Your task to perform on an android device: Open eBay Image 0: 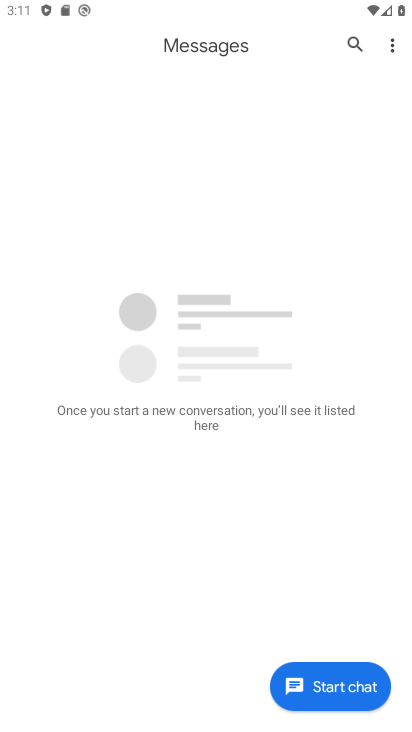
Step 0: press home button
Your task to perform on an android device: Open eBay Image 1: 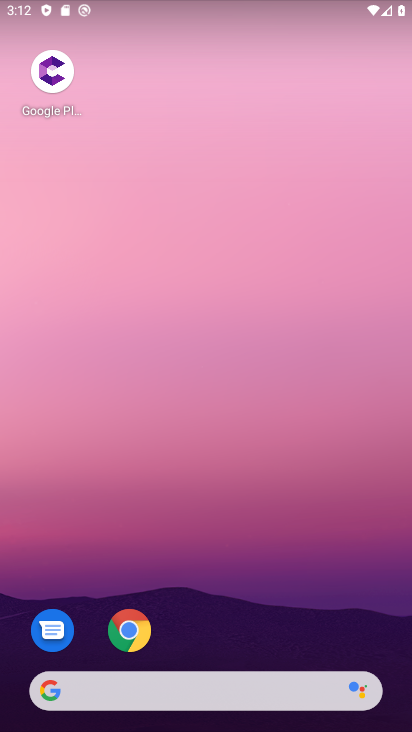
Step 1: click (124, 624)
Your task to perform on an android device: Open eBay Image 2: 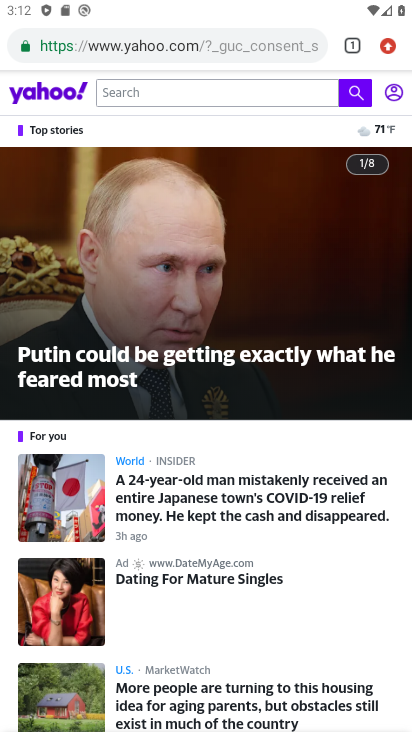
Step 2: click (358, 43)
Your task to perform on an android device: Open eBay Image 3: 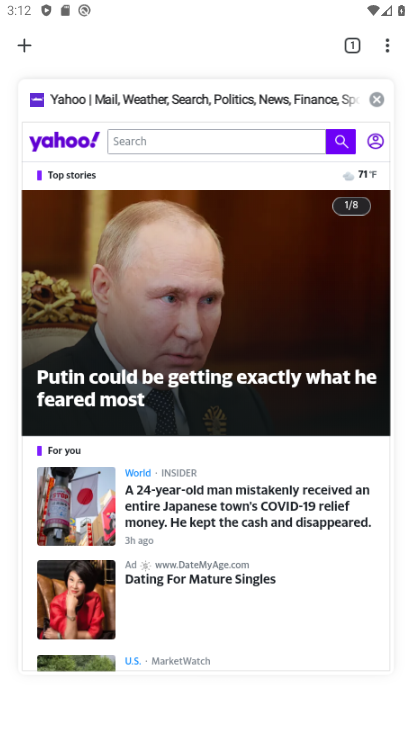
Step 3: click (28, 43)
Your task to perform on an android device: Open eBay Image 4: 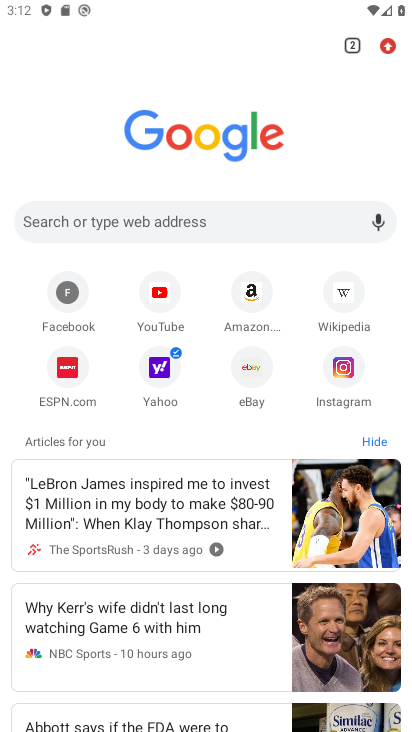
Step 4: click (248, 369)
Your task to perform on an android device: Open eBay Image 5: 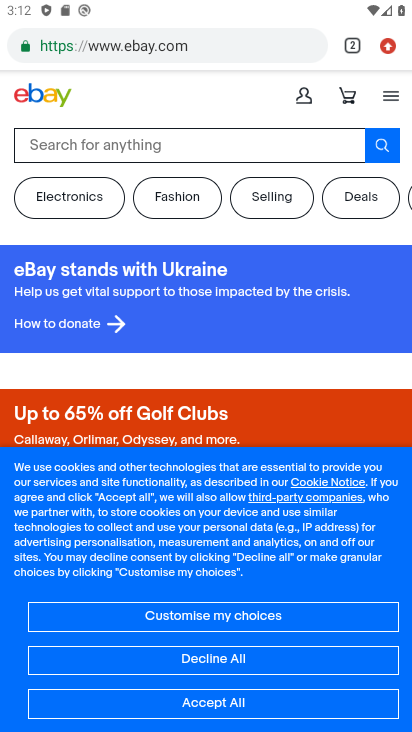
Step 5: click (253, 705)
Your task to perform on an android device: Open eBay Image 6: 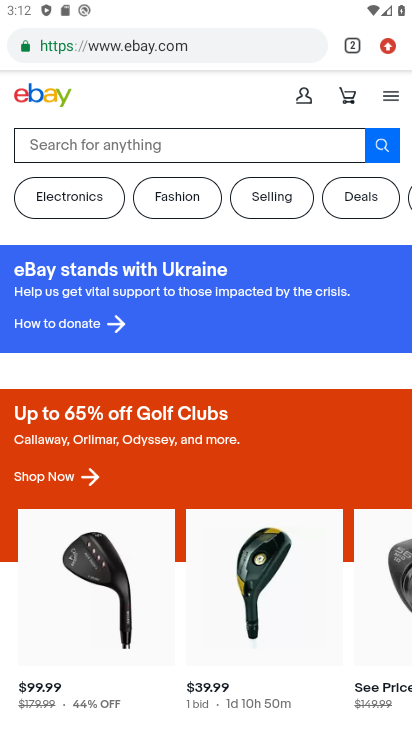
Step 6: task complete